Your task to perform on an android device: allow cookies in the chrome app Image 0: 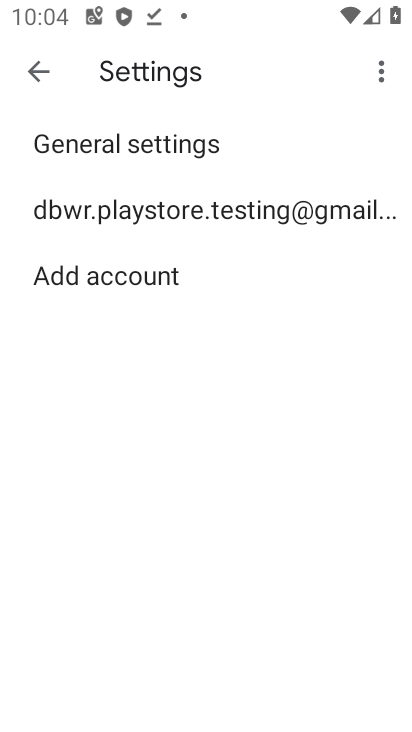
Step 0: click (42, 86)
Your task to perform on an android device: allow cookies in the chrome app Image 1: 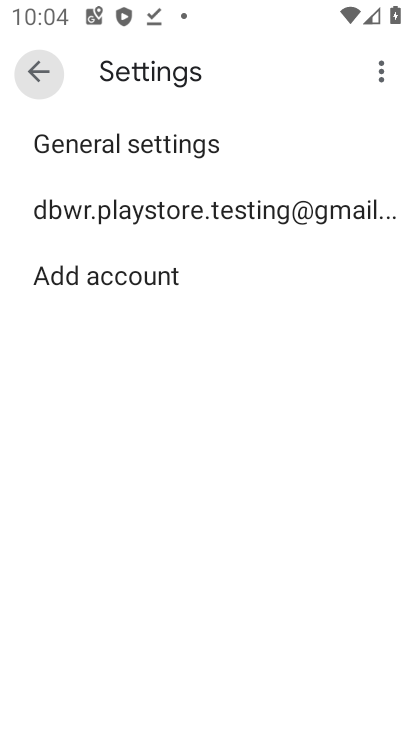
Step 1: click (30, 68)
Your task to perform on an android device: allow cookies in the chrome app Image 2: 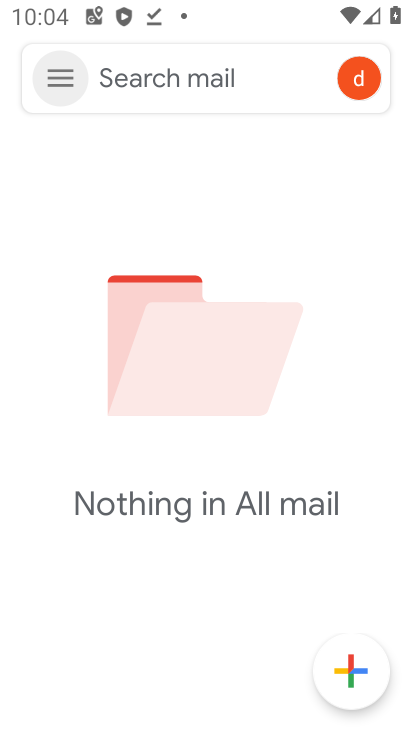
Step 2: click (28, 67)
Your task to perform on an android device: allow cookies in the chrome app Image 3: 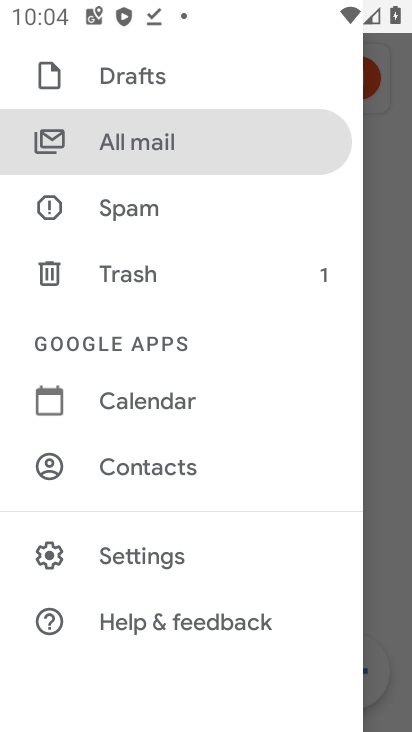
Step 3: click (146, 548)
Your task to perform on an android device: allow cookies in the chrome app Image 4: 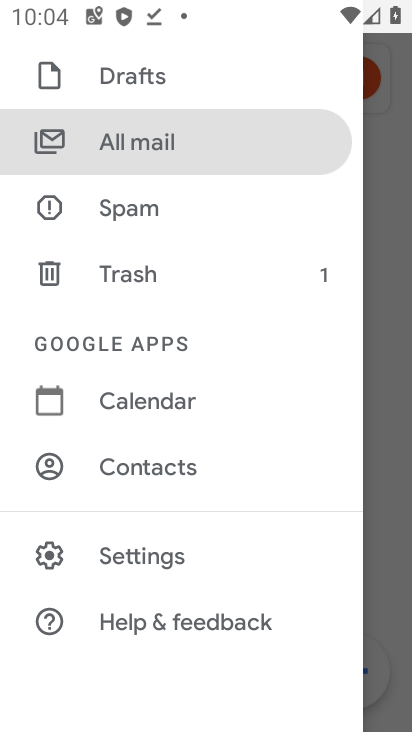
Step 4: click (145, 549)
Your task to perform on an android device: allow cookies in the chrome app Image 5: 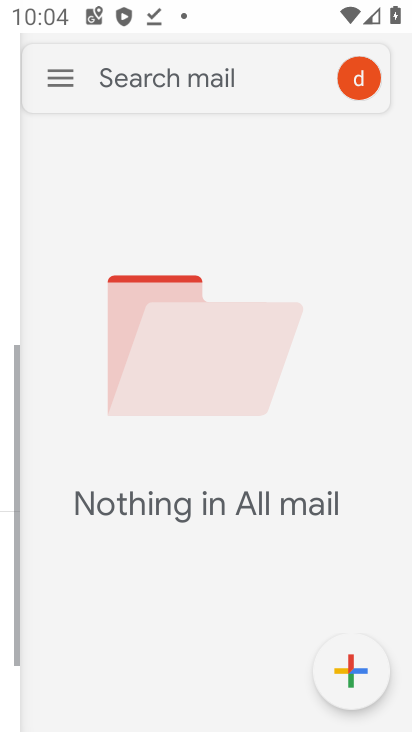
Step 5: click (145, 549)
Your task to perform on an android device: allow cookies in the chrome app Image 6: 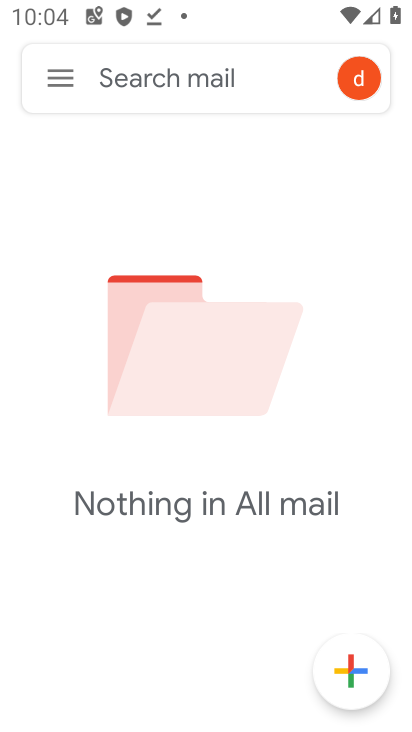
Step 6: click (145, 549)
Your task to perform on an android device: allow cookies in the chrome app Image 7: 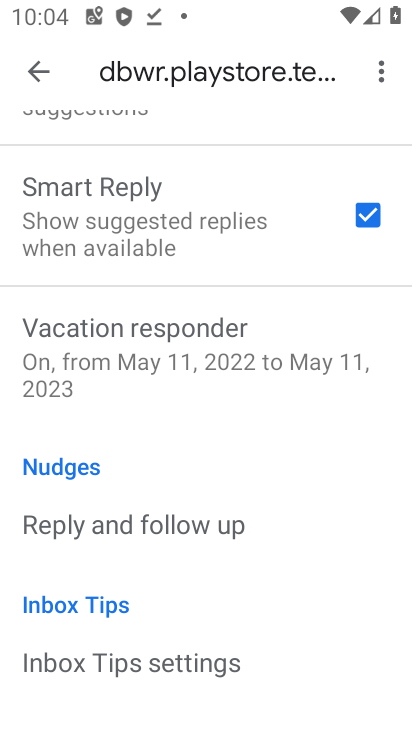
Step 7: press home button
Your task to perform on an android device: allow cookies in the chrome app Image 8: 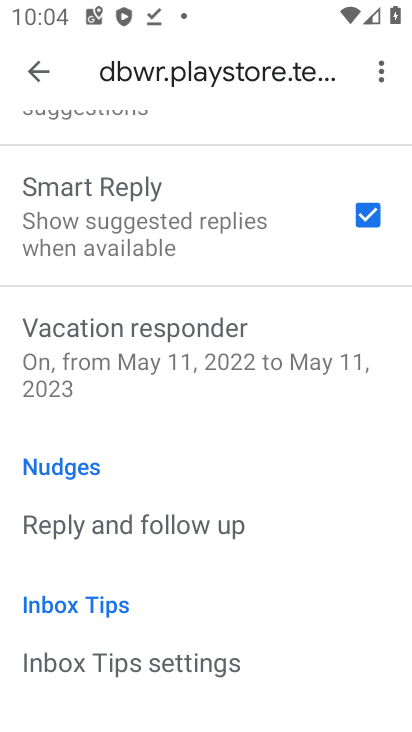
Step 8: press home button
Your task to perform on an android device: allow cookies in the chrome app Image 9: 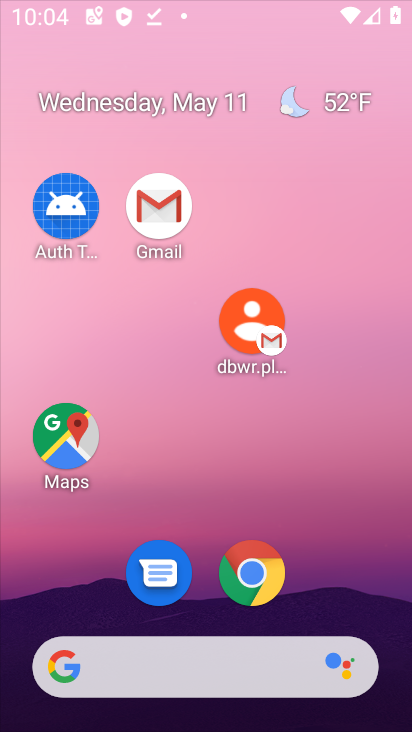
Step 9: press home button
Your task to perform on an android device: allow cookies in the chrome app Image 10: 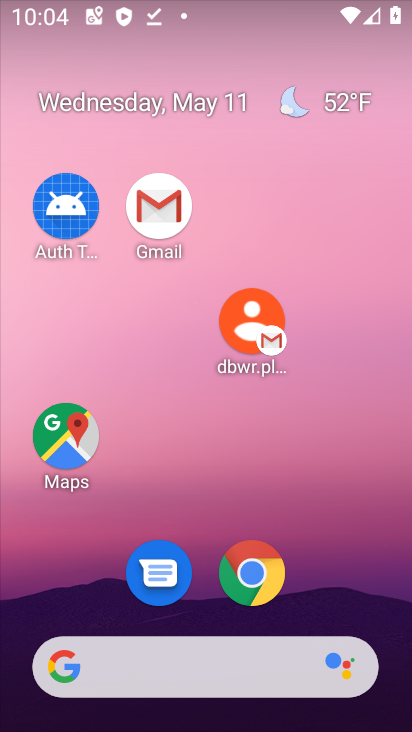
Step 10: drag from (320, 533) to (159, 30)
Your task to perform on an android device: allow cookies in the chrome app Image 11: 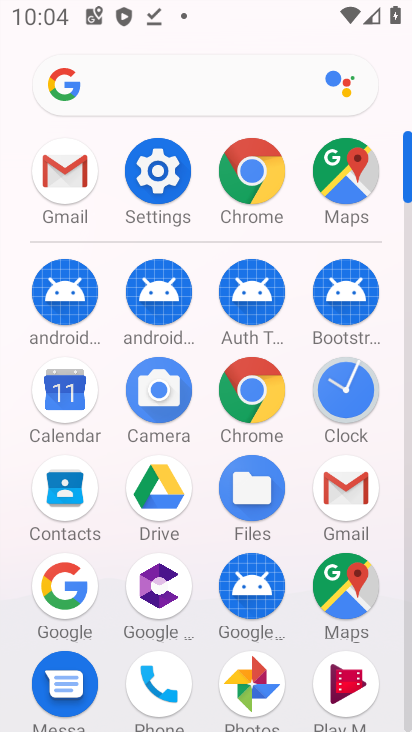
Step 11: click (261, 182)
Your task to perform on an android device: allow cookies in the chrome app Image 12: 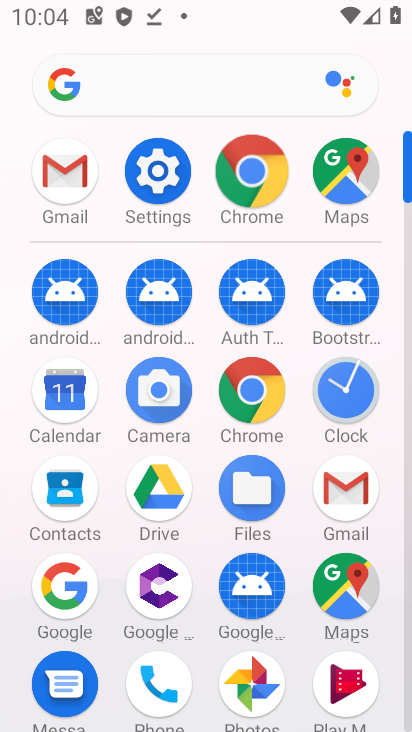
Step 12: click (259, 180)
Your task to perform on an android device: allow cookies in the chrome app Image 13: 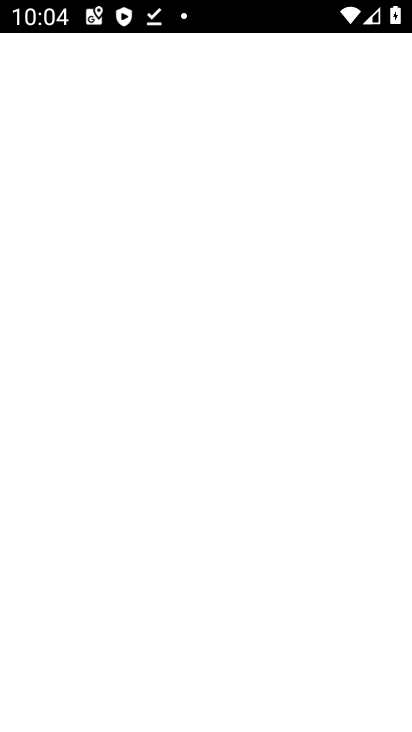
Step 13: click (258, 181)
Your task to perform on an android device: allow cookies in the chrome app Image 14: 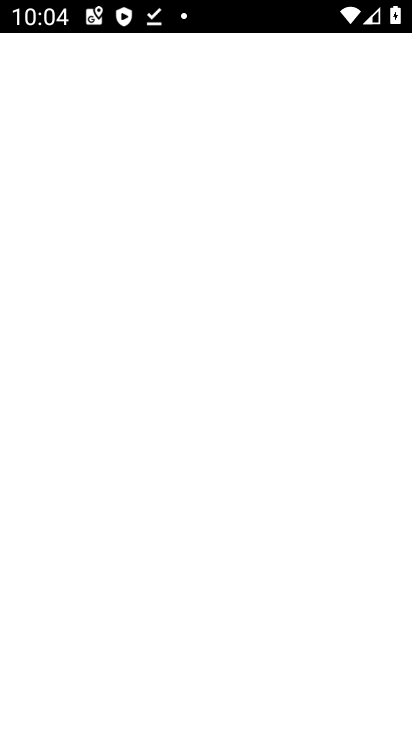
Step 14: click (258, 181)
Your task to perform on an android device: allow cookies in the chrome app Image 15: 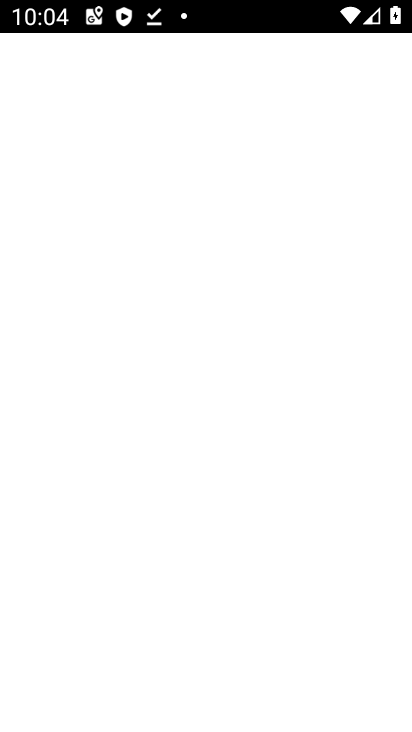
Step 15: click (257, 181)
Your task to perform on an android device: allow cookies in the chrome app Image 16: 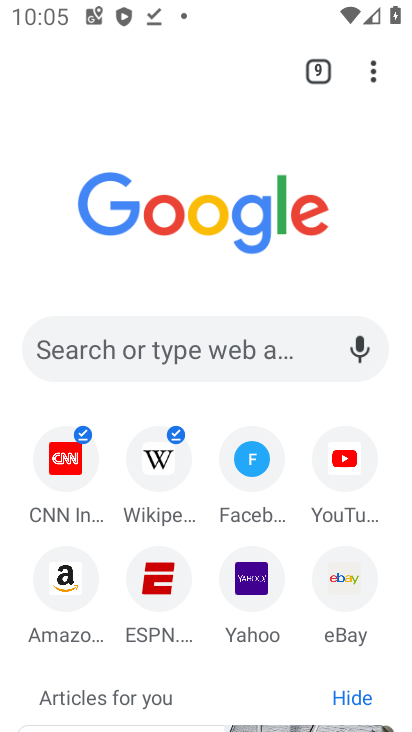
Step 16: drag from (373, 72) to (130, 605)
Your task to perform on an android device: allow cookies in the chrome app Image 17: 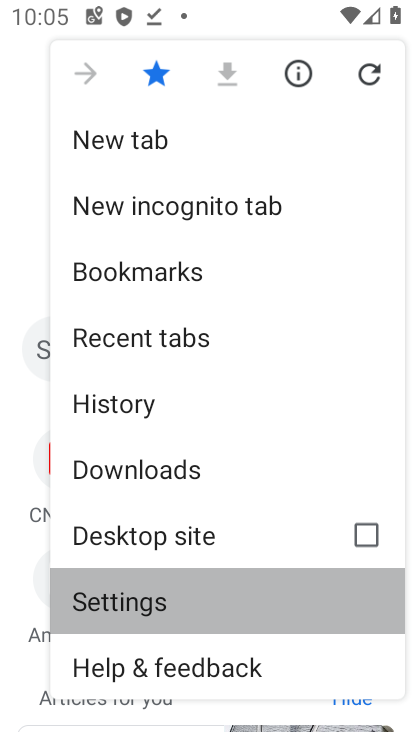
Step 17: click (130, 605)
Your task to perform on an android device: allow cookies in the chrome app Image 18: 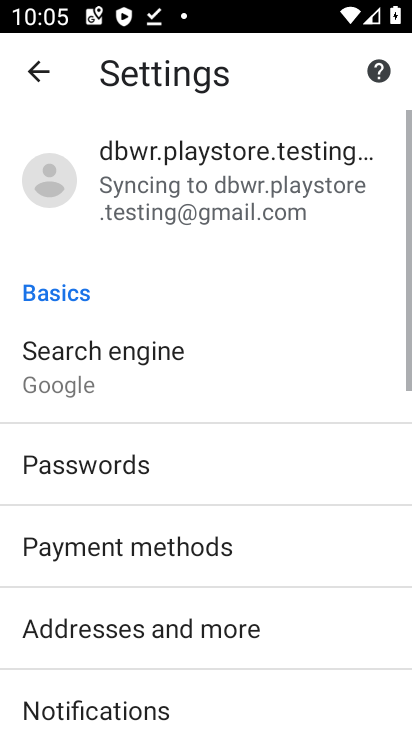
Step 18: click (130, 605)
Your task to perform on an android device: allow cookies in the chrome app Image 19: 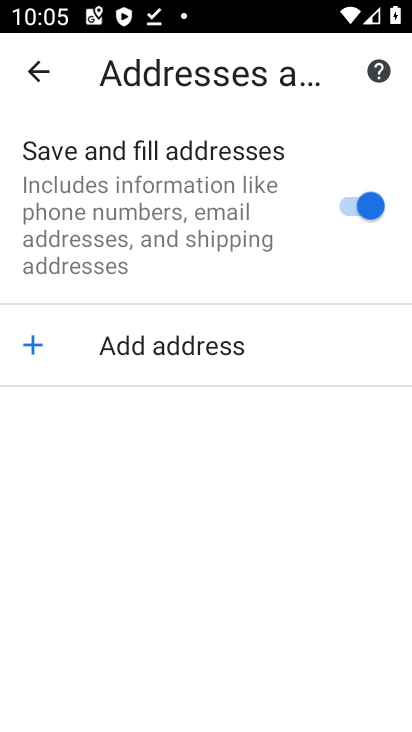
Step 19: drag from (175, 479) to (198, 122)
Your task to perform on an android device: allow cookies in the chrome app Image 20: 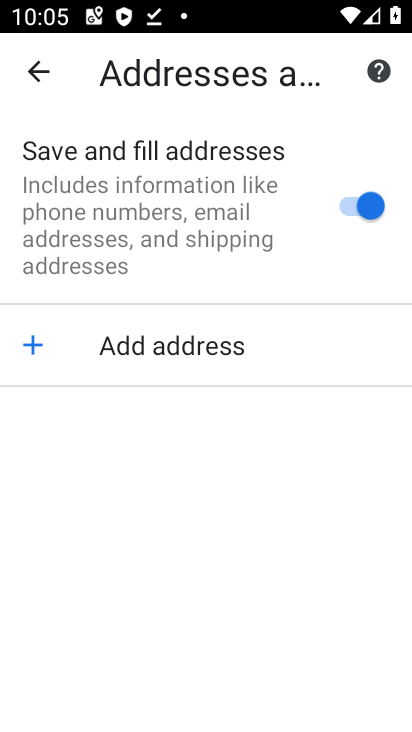
Step 20: click (34, 68)
Your task to perform on an android device: allow cookies in the chrome app Image 21: 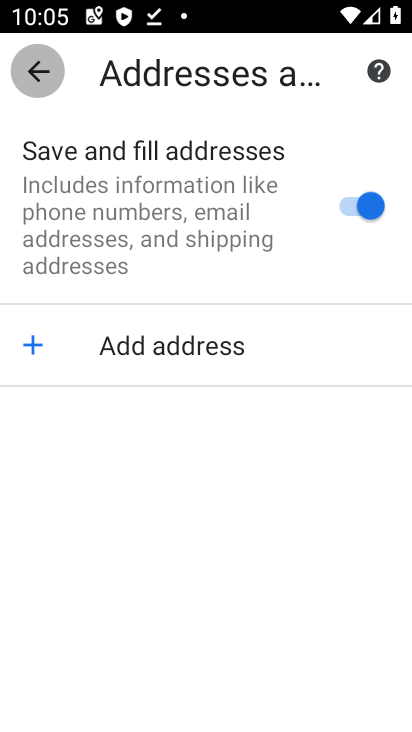
Step 21: click (34, 64)
Your task to perform on an android device: allow cookies in the chrome app Image 22: 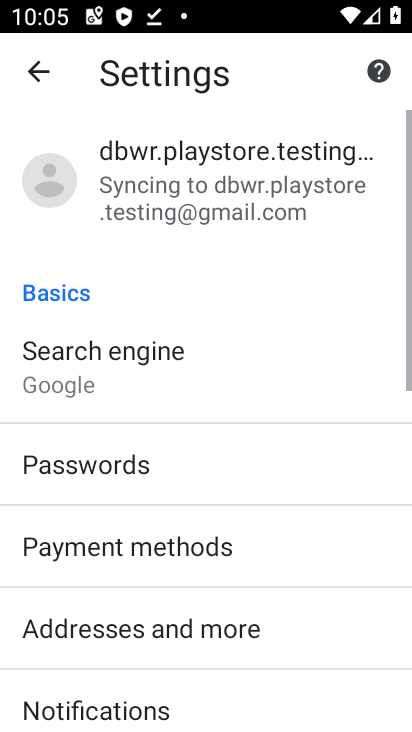
Step 22: click (34, 62)
Your task to perform on an android device: allow cookies in the chrome app Image 23: 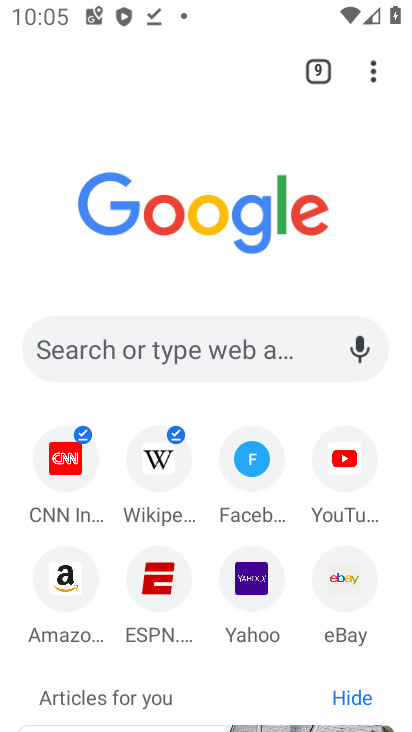
Step 23: drag from (373, 67) to (154, 611)
Your task to perform on an android device: allow cookies in the chrome app Image 24: 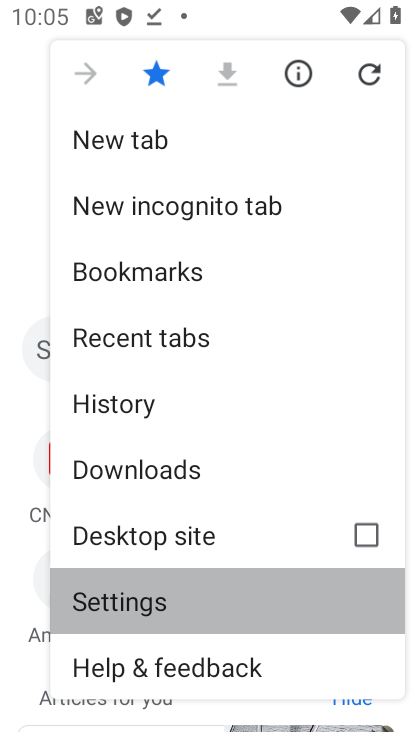
Step 24: click (158, 610)
Your task to perform on an android device: allow cookies in the chrome app Image 25: 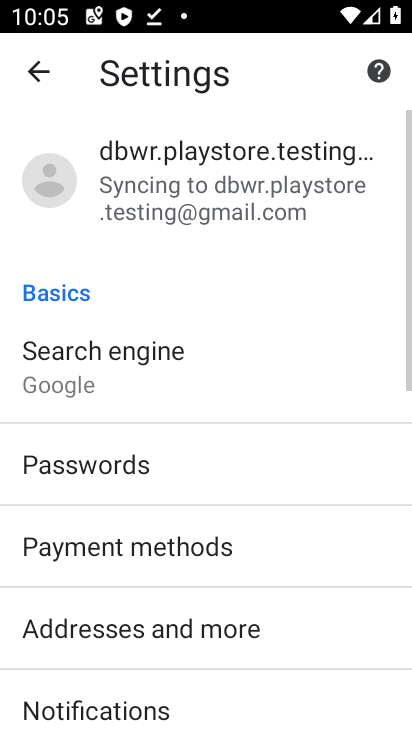
Step 25: drag from (186, 497) to (133, 51)
Your task to perform on an android device: allow cookies in the chrome app Image 26: 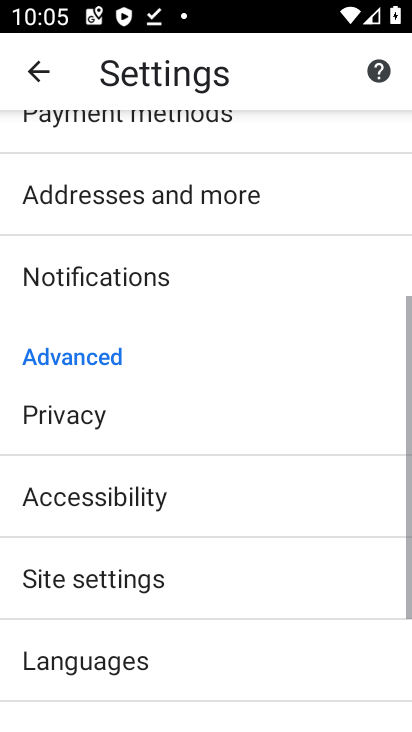
Step 26: drag from (217, 513) to (160, 75)
Your task to perform on an android device: allow cookies in the chrome app Image 27: 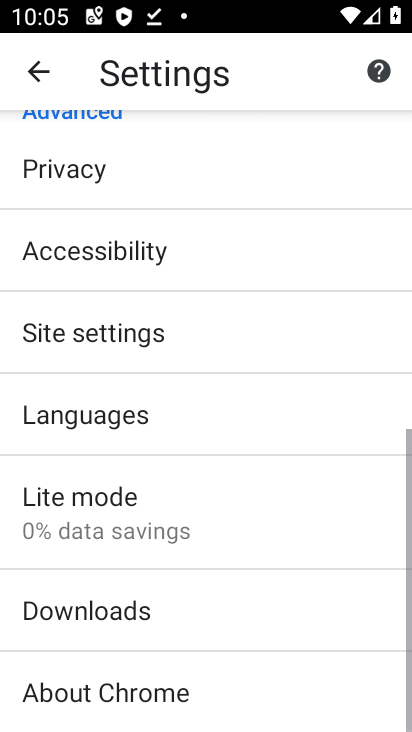
Step 27: drag from (194, 384) to (164, 75)
Your task to perform on an android device: allow cookies in the chrome app Image 28: 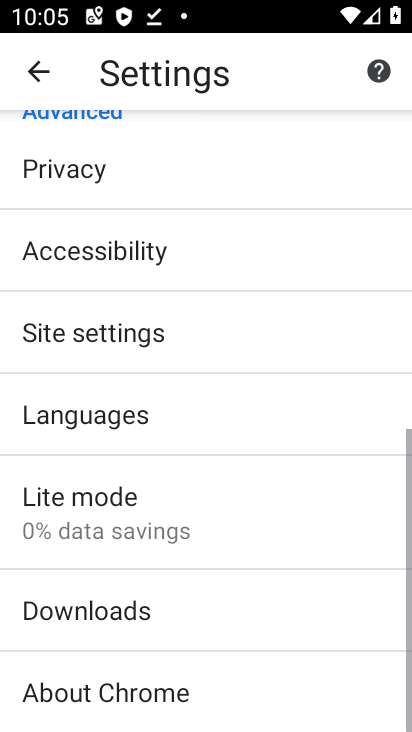
Step 28: drag from (206, 466) to (185, 147)
Your task to perform on an android device: allow cookies in the chrome app Image 29: 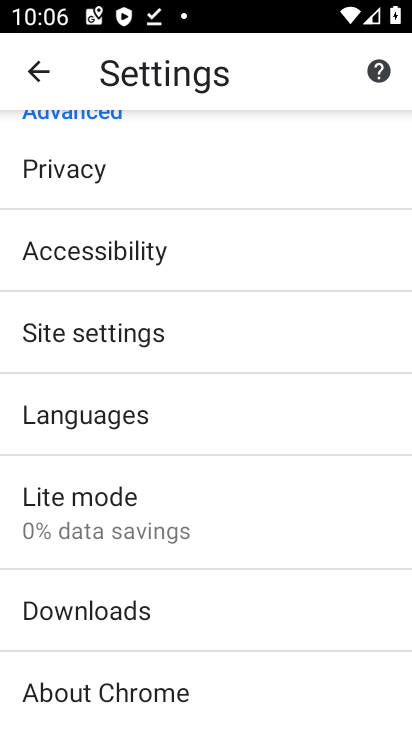
Step 29: click (78, 336)
Your task to perform on an android device: allow cookies in the chrome app Image 30: 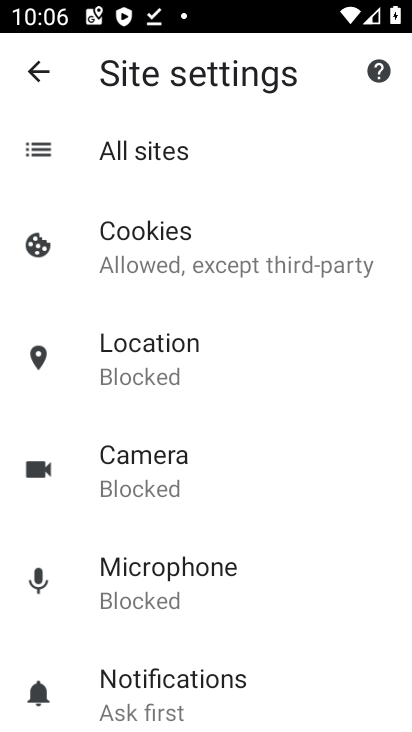
Step 30: click (159, 253)
Your task to perform on an android device: allow cookies in the chrome app Image 31: 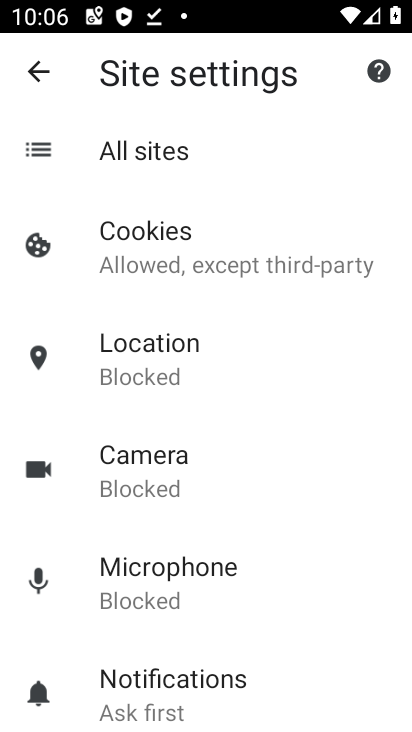
Step 31: click (159, 253)
Your task to perform on an android device: allow cookies in the chrome app Image 32: 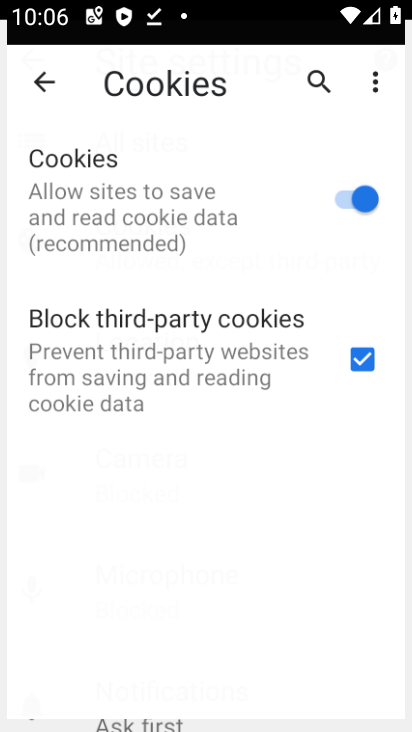
Step 32: click (159, 253)
Your task to perform on an android device: allow cookies in the chrome app Image 33: 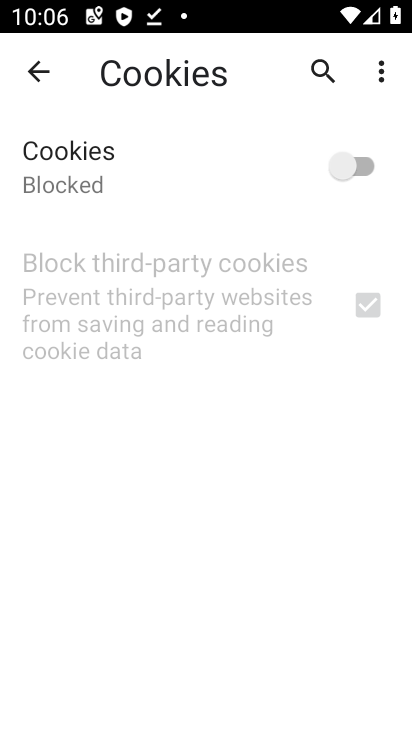
Step 33: click (351, 153)
Your task to perform on an android device: allow cookies in the chrome app Image 34: 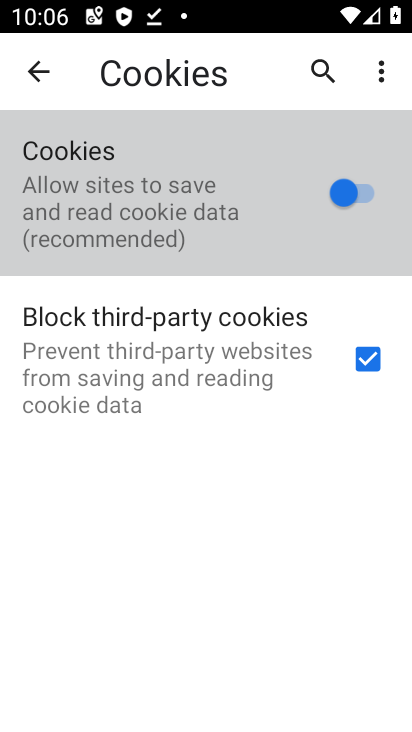
Step 34: click (351, 153)
Your task to perform on an android device: allow cookies in the chrome app Image 35: 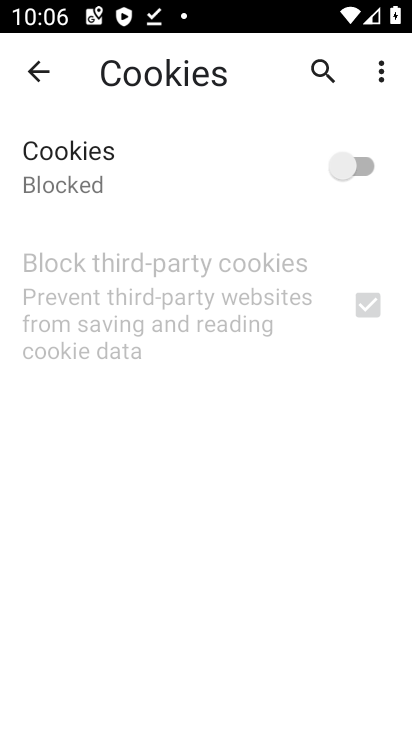
Step 35: click (344, 164)
Your task to perform on an android device: allow cookies in the chrome app Image 36: 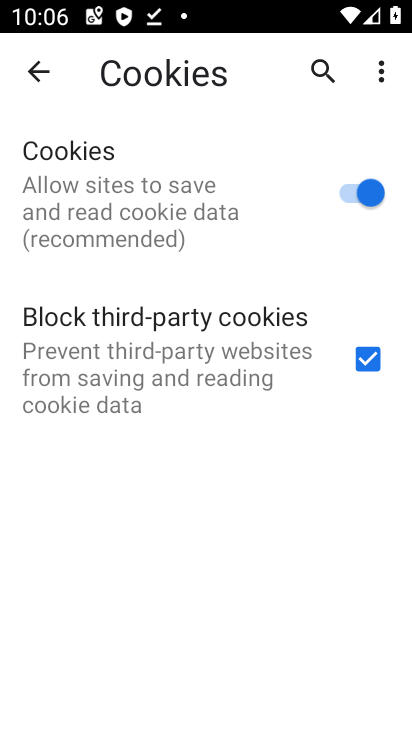
Step 36: press back button
Your task to perform on an android device: allow cookies in the chrome app Image 37: 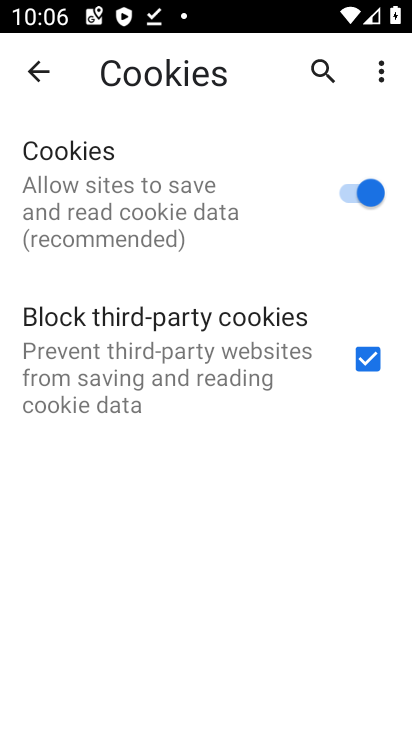
Step 37: press back button
Your task to perform on an android device: allow cookies in the chrome app Image 38: 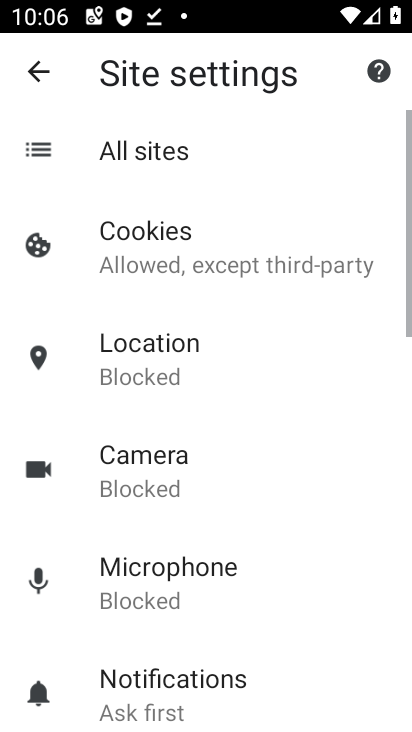
Step 38: press back button
Your task to perform on an android device: allow cookies in the chrome app Image 39: 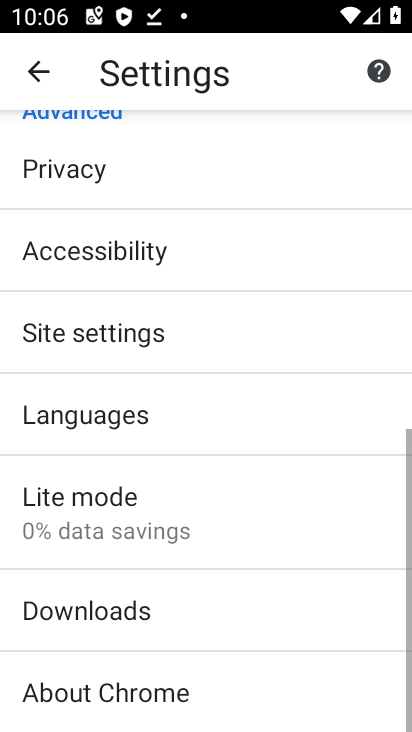
Step 39: press back button
Your task to perform on an android device: allow cookies in the chrome app Image 40: 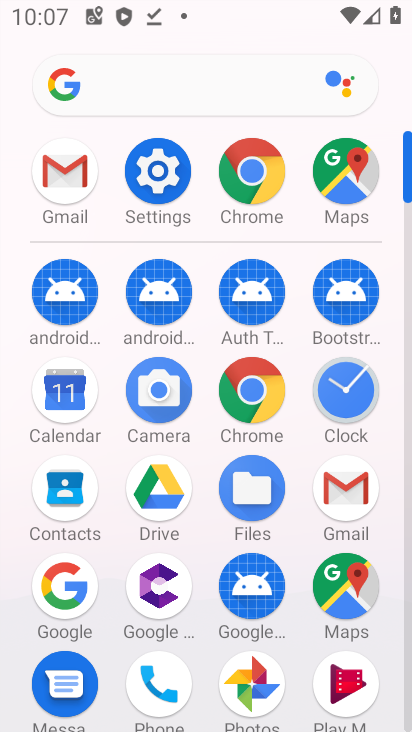
Step 40: click (255, 165)
Your task to perform on an android device: allow cookies in the chrome app Image 41: 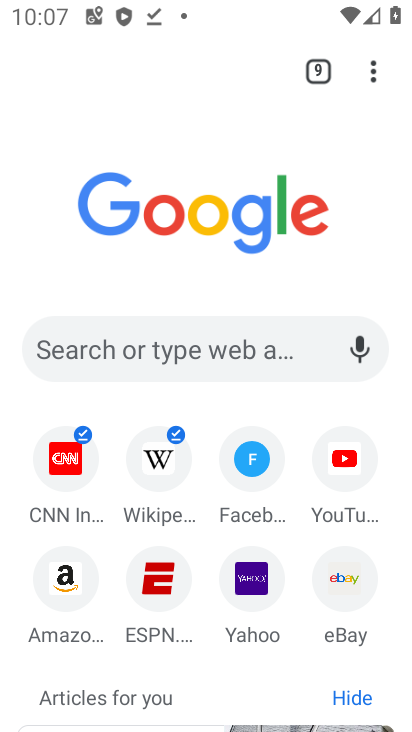
Step 41: drag from (371, 62) to (115, 609)
Your task to perform on an android device: allow cookies in the chrome app Image 42: 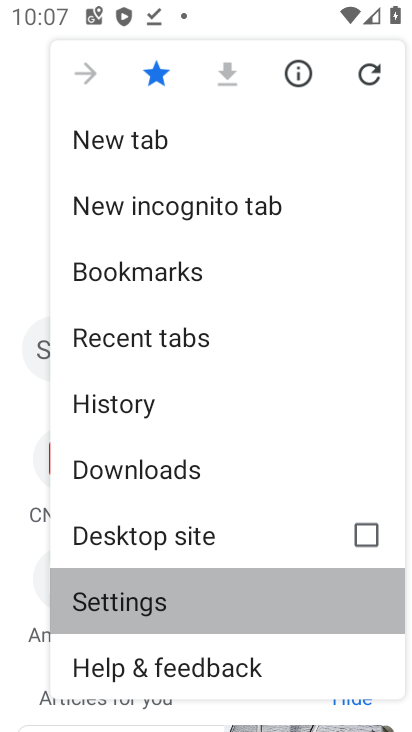
Step 42: click (115, 609)
Your task to perform on an android device: allow cookies in the chrome app Image 43: 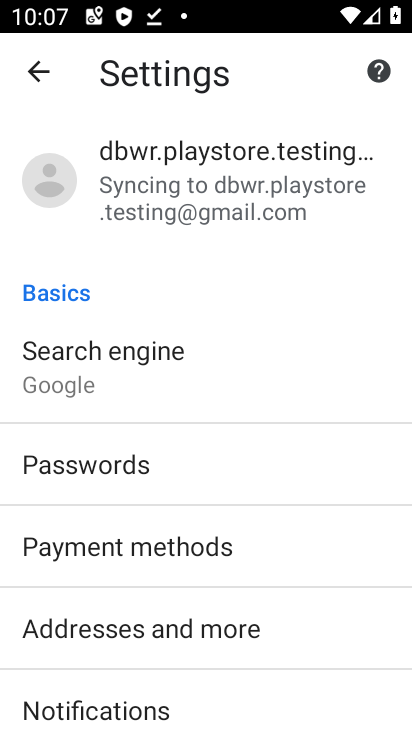
Step 43: drag from (113, 551) to (99, 69)
Your task to perform on an android device: allow cookies in the chrome app Image 44: 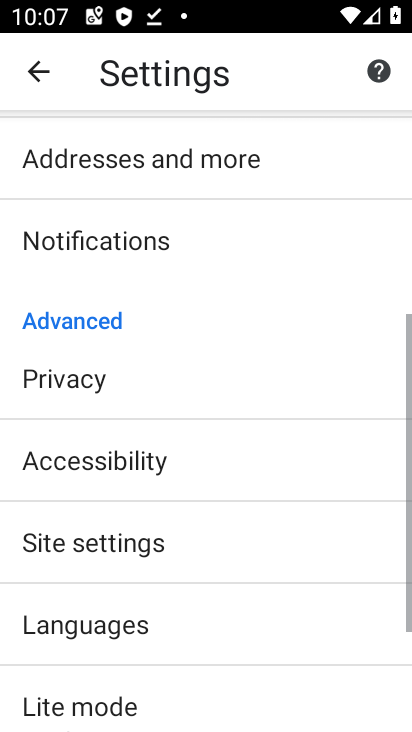
Step 44: drag from (146, 493) to (128, 116)
Your task to perform on an android device: allow cookies in the chrome app Image 45: 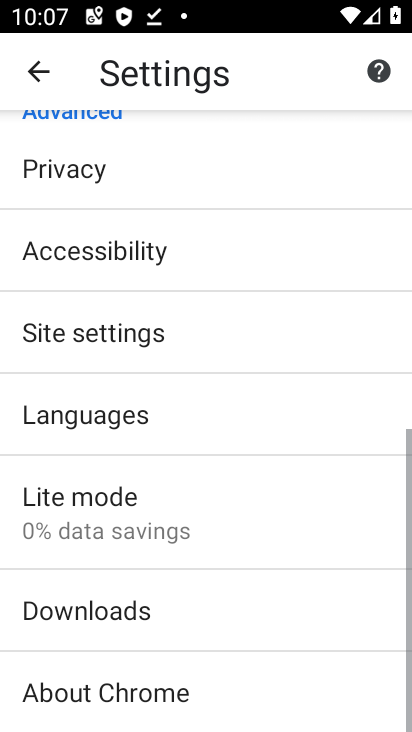
Step 45: drag from (207, 415) to (139, 91)
Your task to perform on an android device: allow cookies in the chrome app Image 46: 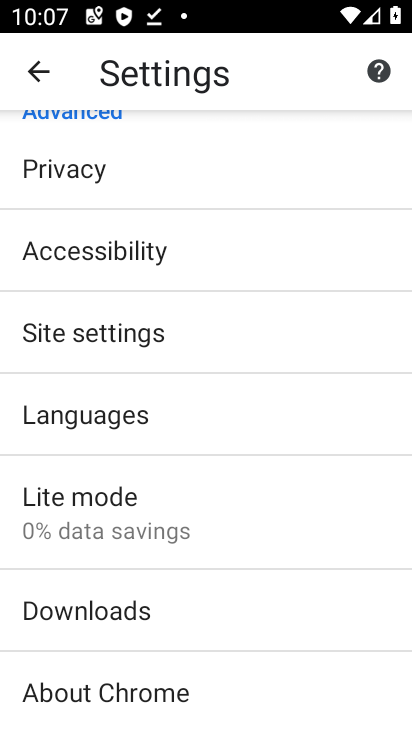
Step 46: click (96, 340)
Your task to perform on an android device: allow cookies in the chrome app Image 47: 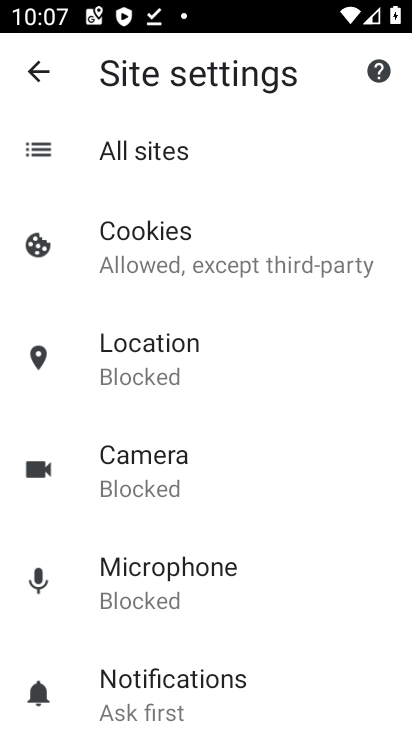
Step 47: click (146, 250)
Your task to perform on an android device: allow cookies in the chrome app Image 48: 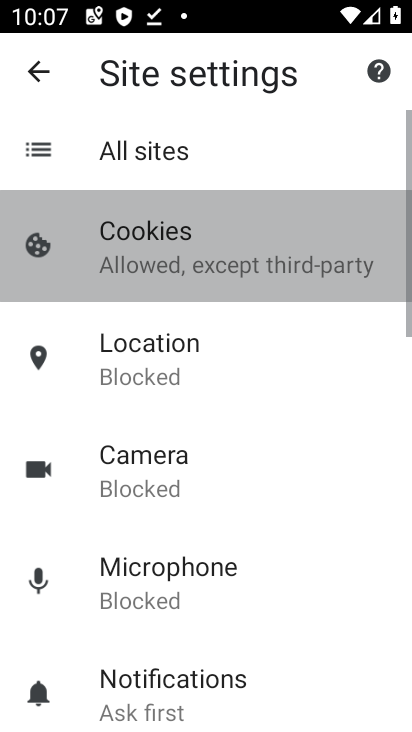
Step 48: click (146, 246)
Your task to perform on an android device: allow cookies in the chrome app Image 49: 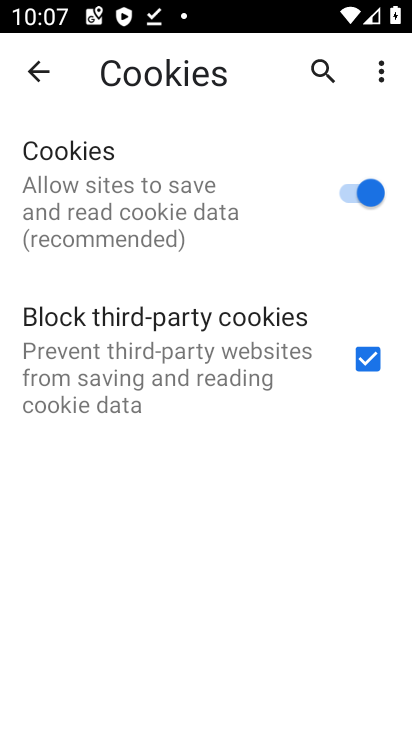
Step 49: task complete